Your task to perform on an android device: Go to sound settings Image 0: 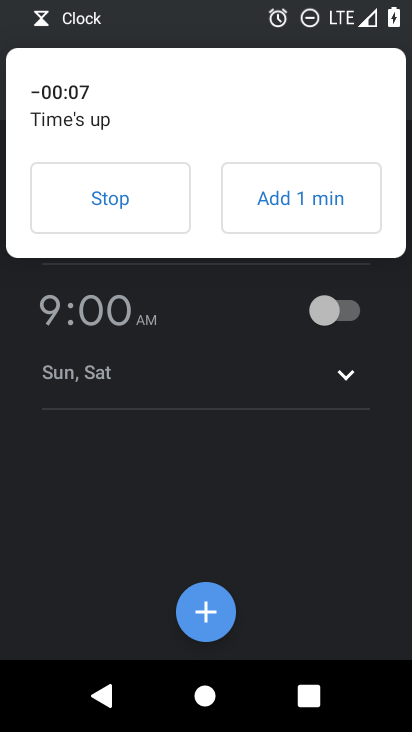
Step 0: click (146, 201)
Your task to perform on an android device: Go to sound settings Image 1: 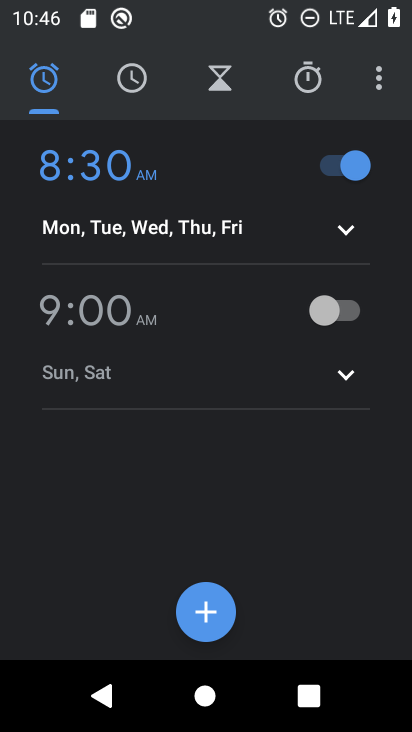
Step 1: press home button
Your task to perform on an android device: Go to sound settings Image 2: 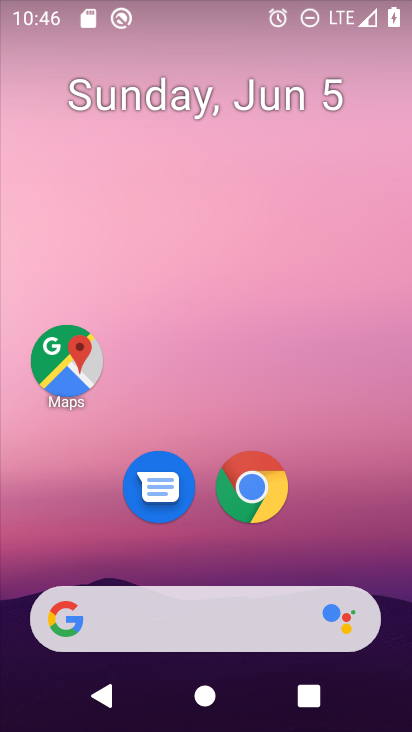
Step 2: drag from (131, 256) to (124, 110)
Your task to perform on an android device: Go to sound settings Image 3: 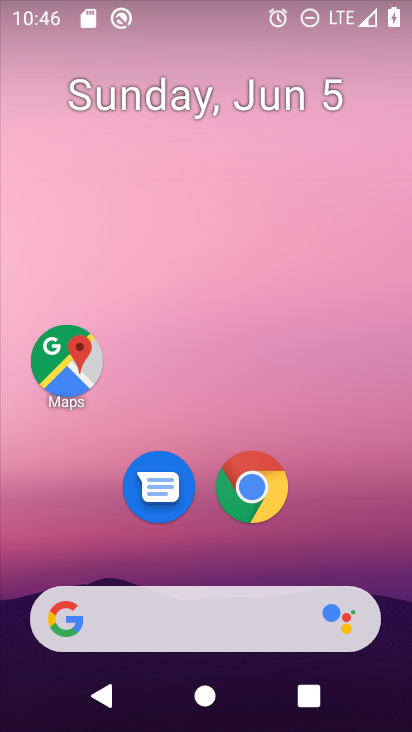
Step 3: drag from (186, 450) to (203, 308)
Your task to perform on an android device: Go to sound settings Image 4: 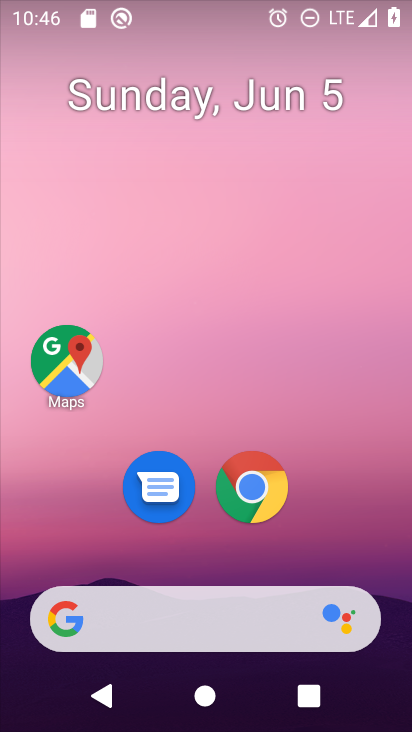
Step 4: drag from (171, 483) to (163, 173)
Your task to perform on an android device: Go to sound settings Image 5: 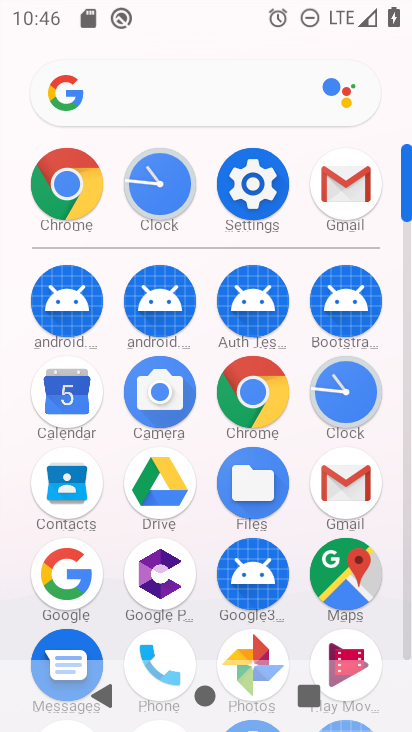
Step 5: click (256, 167)
Your task to perform on an android device: Go to sound settings Image 6: 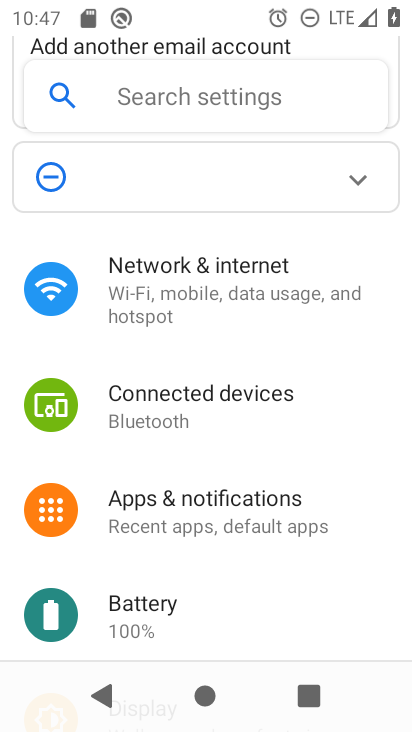
Step 6: drag from (187, 595) to (206, 203)
Your task to perform on an android device: Go to sound settings Image 7: 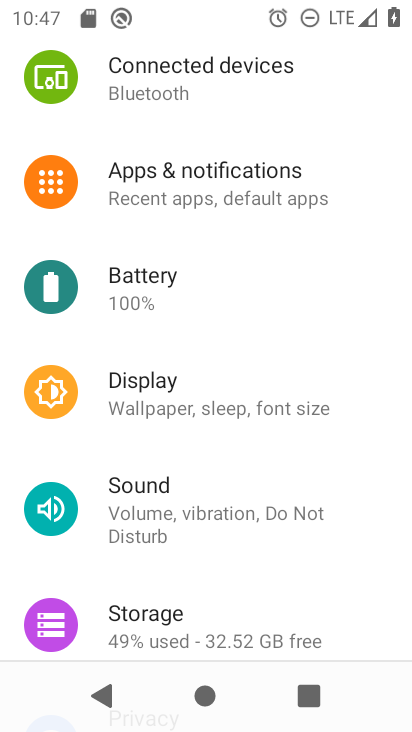
Step 7: click (150, 495)
Your task to perform on an android device: Go to sound settings Image 8: 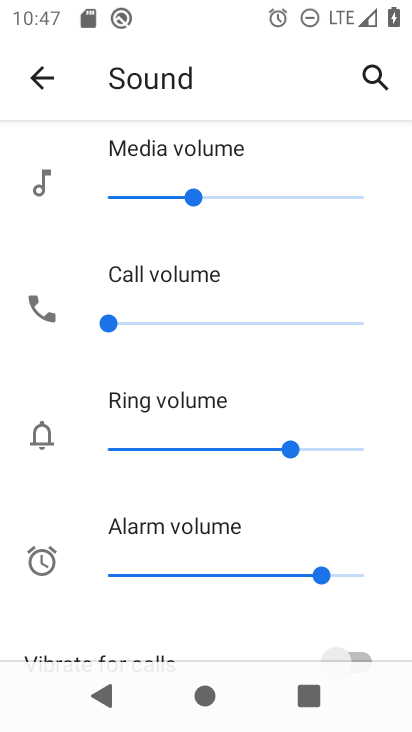
Step 8: task complete